Your task to perform on an android device: turn off priority inbox in the gmail app Image 0: 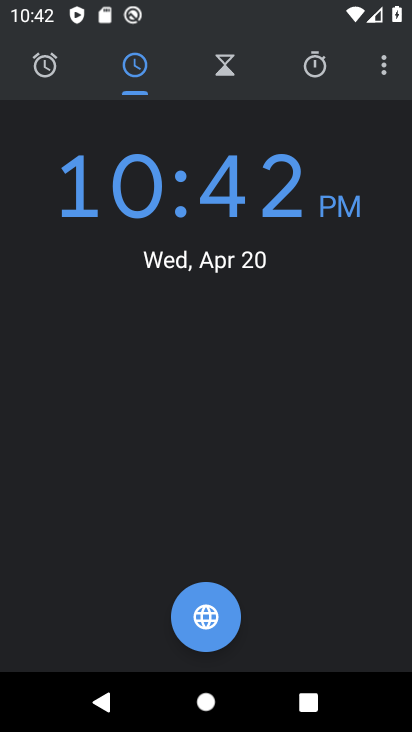
Step 0: press home button
Your task to perform on an android device: turn off priority inbox in the gmail app Image 1: 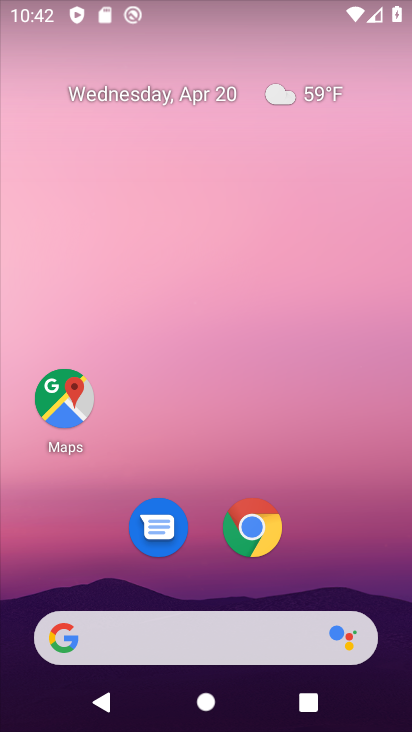
Step 1: drag from (368, 551) to (355, 143)
Your task to perform on an android device: turn off priority inbox in the gmail app Image 2: 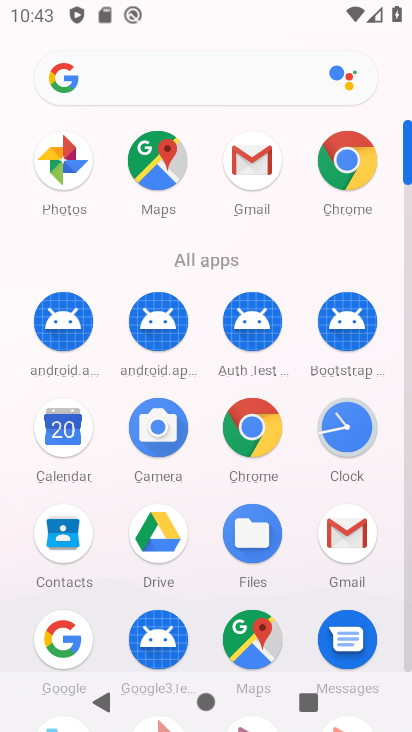
Step 2: click (343, 542)
Your task to perform on an android device: turn off priority inbox in the gmail app Image 3: 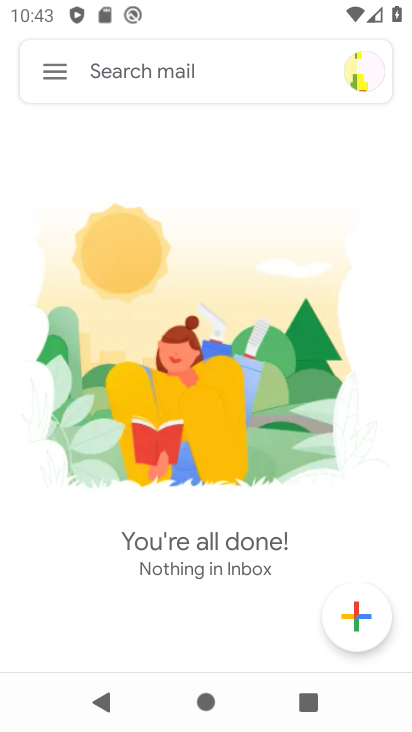
Step 3: click (44, 72)
Your task to perform on an android device: turn off priority inbox in the gmail app Image 4: 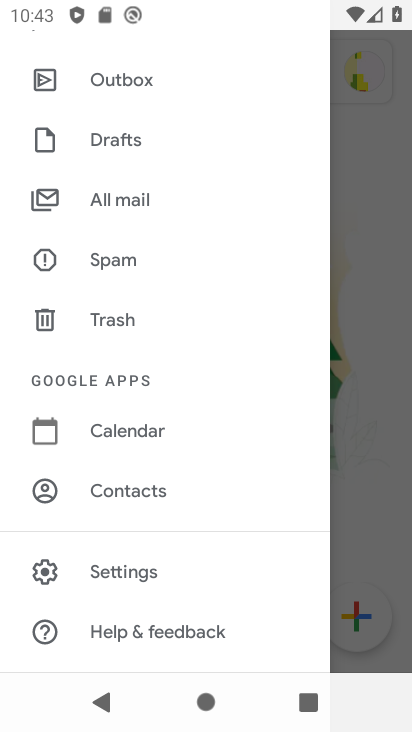
Step 4: click (134, 582)
Your task to perform on an android device: turn off priority inbox in the gmail app Image 5: 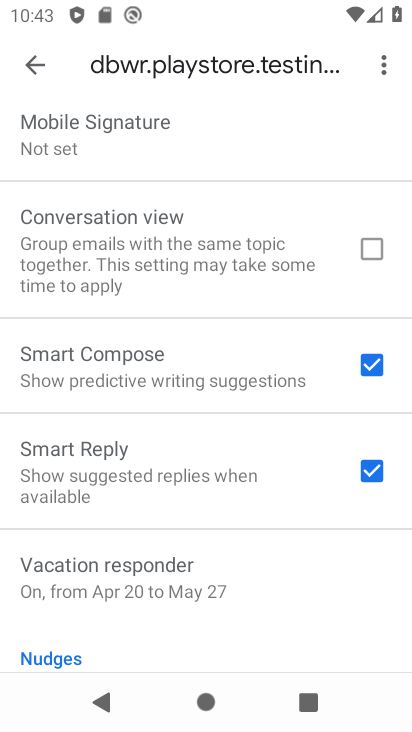
Step 5: drag from (232, 224) to (283, 604)
Your task to perform on an android device: turn off priority inbox in the gmail app Image 6: 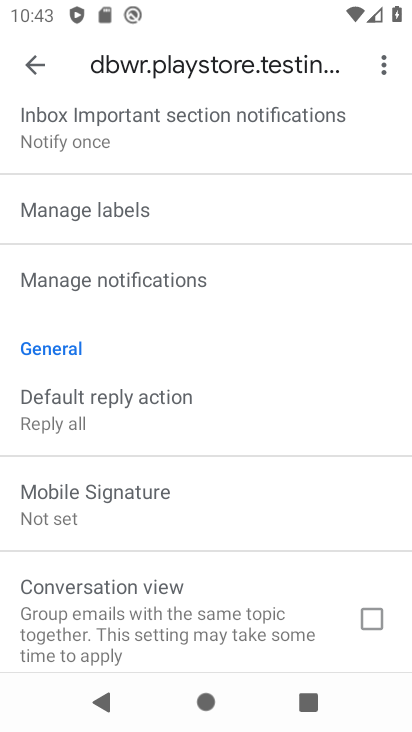
Step 6: drag from (298, 270) to (301, 617)
Your task to perform on an android device: turn off priority inbox in the gmail app Image 7: 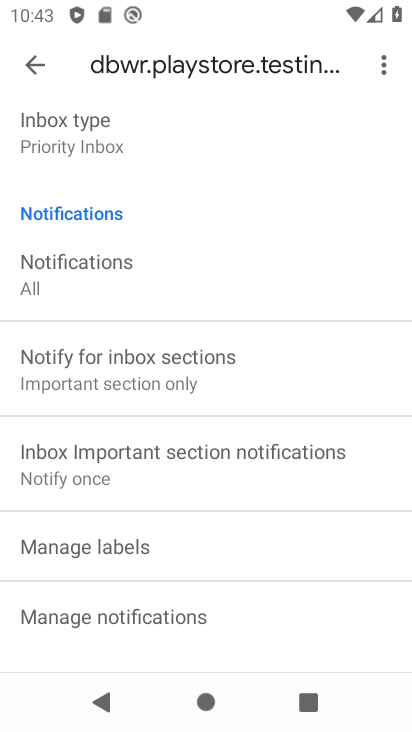
Step 7: drag from (256, 297) to (278, 570)
Your task to perform on an android device: turn off priority inbox in the gmail app Image 8: 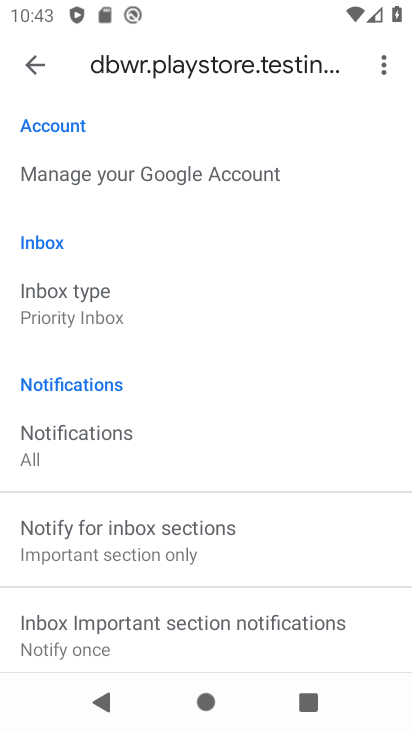
Step 8: click (93, 302)
Your task to perform on an android device: turn off priority inbox in the gmail app Image 9: 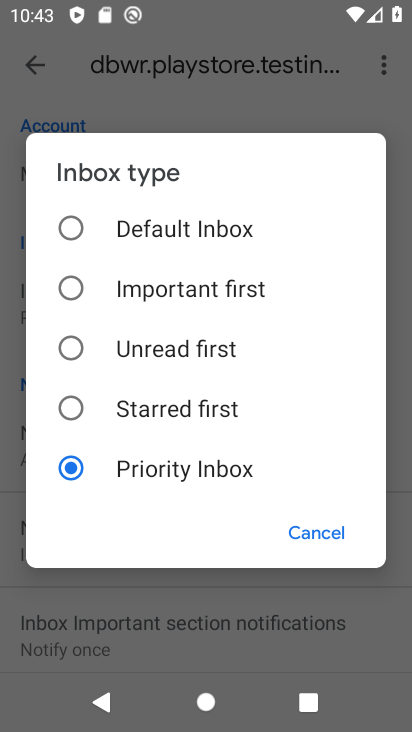
Step 9: click (66, 239)
Your task to perform on an android device: turn off priority inbox in the gmail app Image 10: 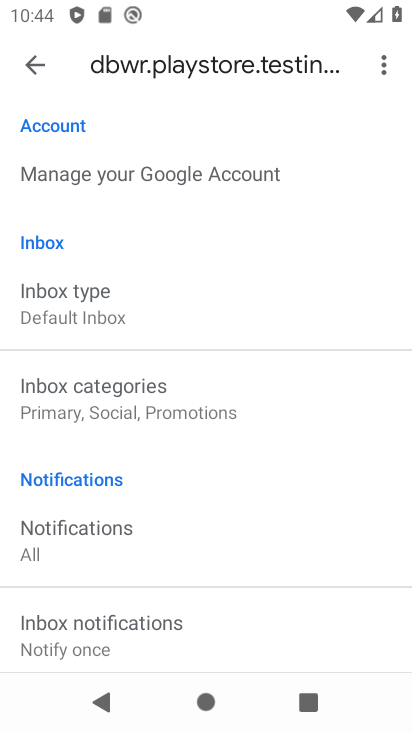
Step 10: task complete